Your task to perform on an android device: What is the recent news? Image 0: 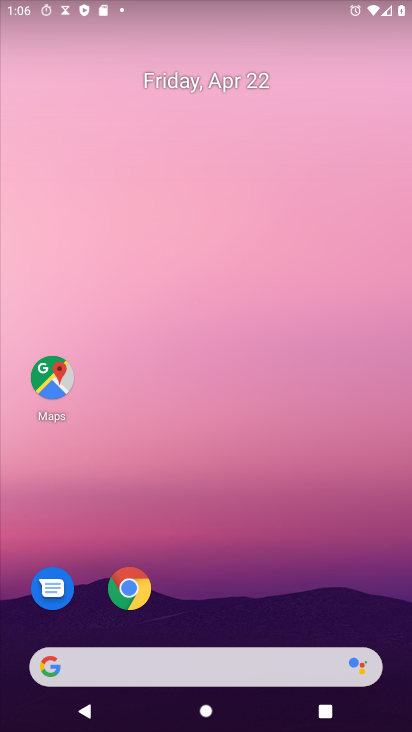
Step 0: drag from (281, 693) to (295, 107)
Your task to perform on an android device: What is the recent news? Image 1: 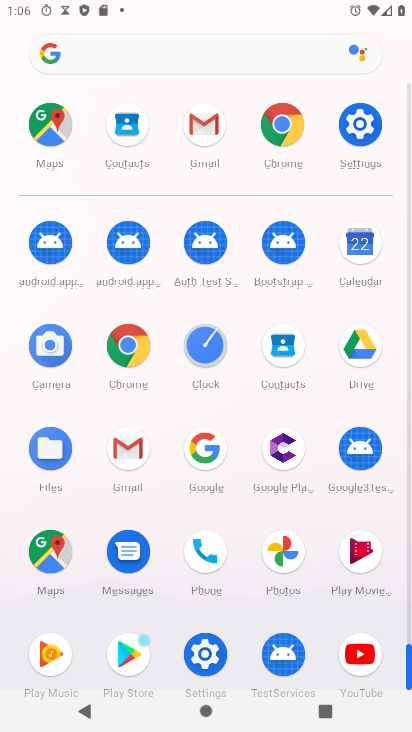
Step 1: click (144, 63)
Your task to perform on an android device: What is the recent news? Image 2: 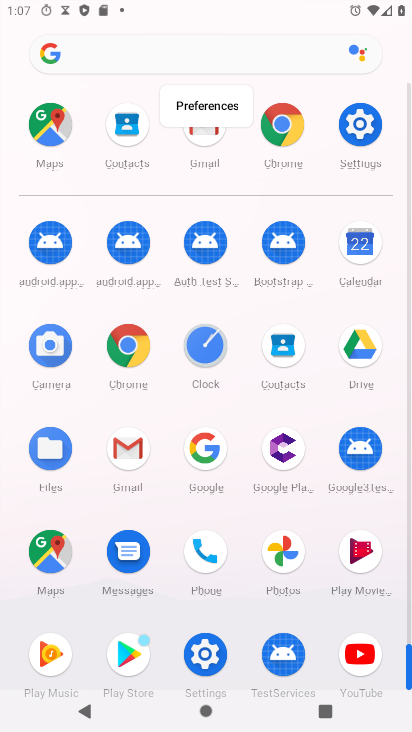
Step 2: click (128, 56)
Your task to perform on an android device: What is the recent news? Image 3: 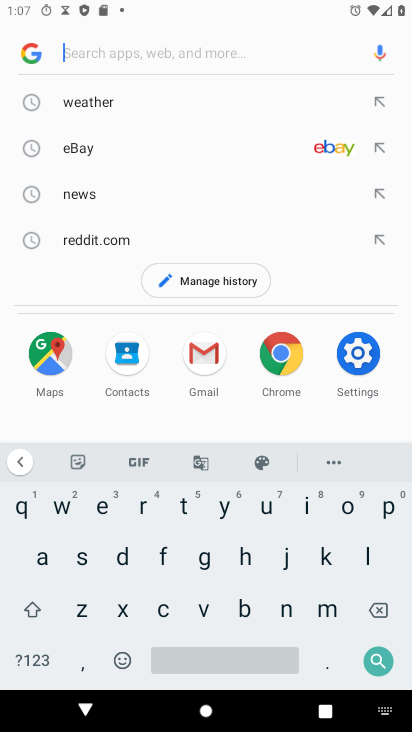
Step 3: click (137, 508)
Your task to perform on an android device: What is the recent news? Image 4: 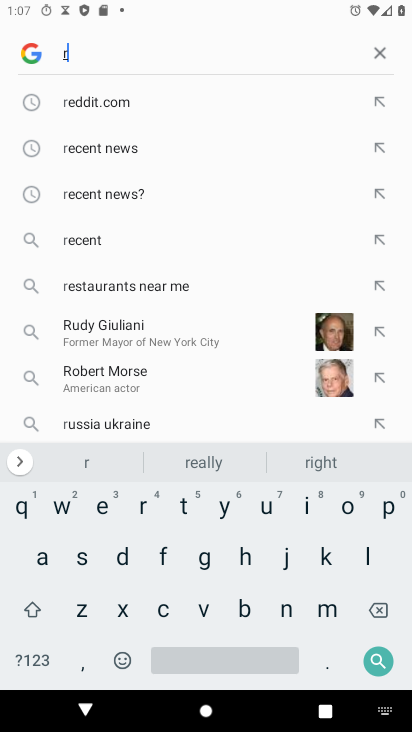
Step 4: click (115, 139)
Your task to perform on an android device: What is the recent news? Image 5: 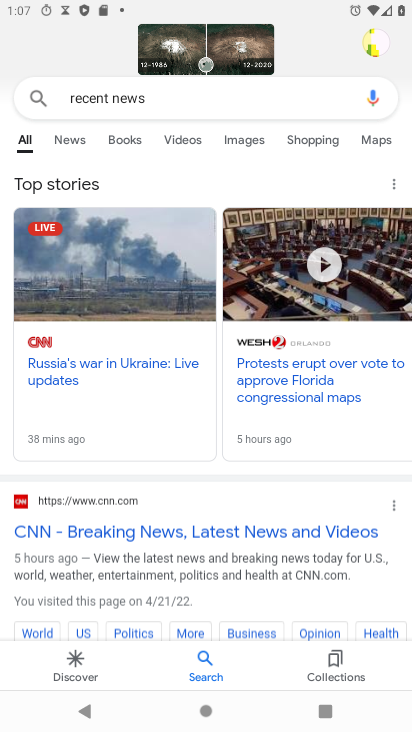
Step 5: task complete